Your task to perform on an android device: Go to network settings Image 0: 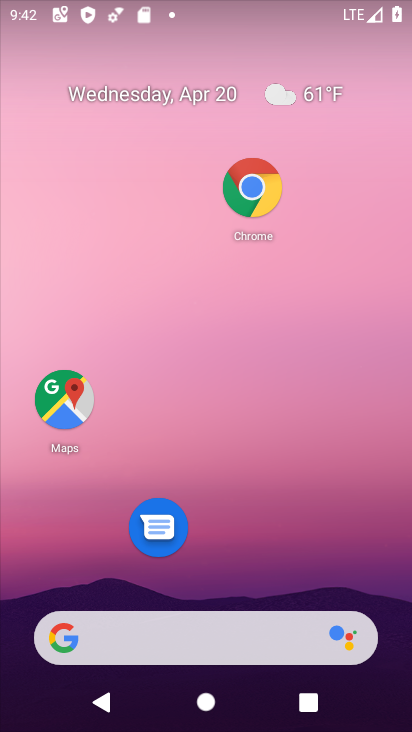
Step 0: drag from (239, 501) to (186, 28)
Your task to perform on an android device: Go to network settings Image 1: 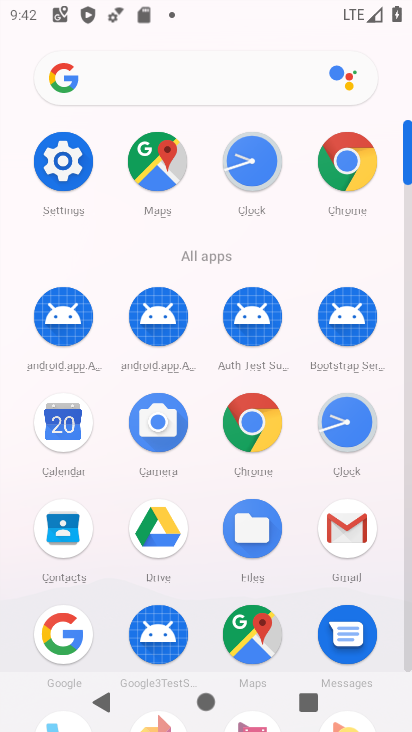
Step 1: click (58, 153)
Your task to perform on an android device: Go to network settings Image 2: 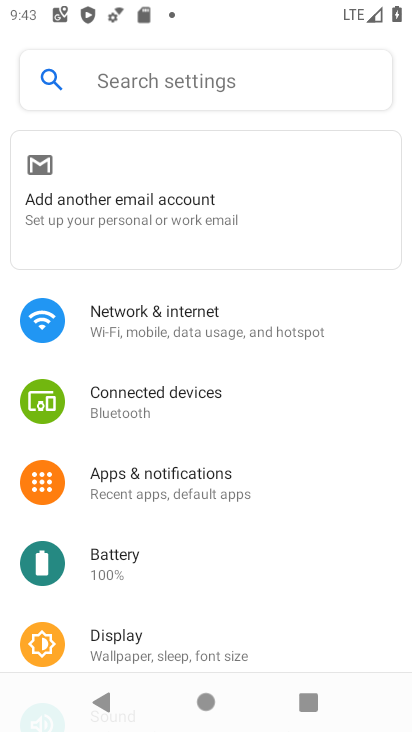
Step 2: click (144, 312)
Your task to perform on an android device: Go to network settings Image 3: 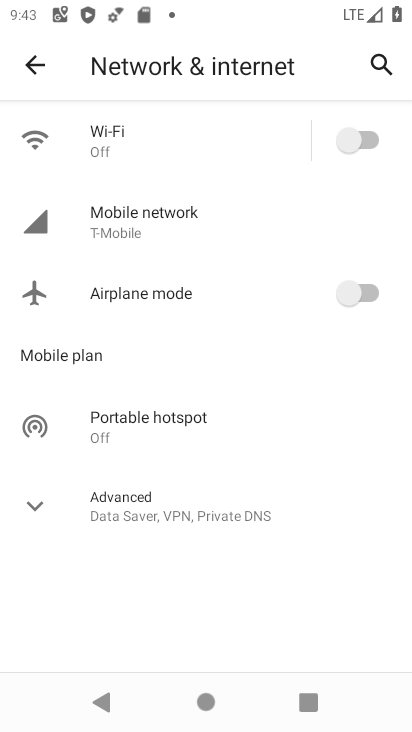
Step 3: task complete